Your task to perform on an android device: Search for a new bike on Walmart. Image 0: 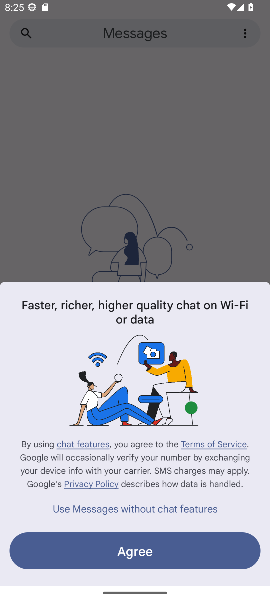
Step 0: press home button
Your task to perform on an android device: Search for a new bike on Walmart. Image 1: 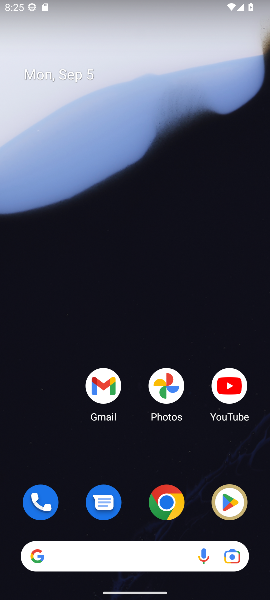
Step 1: drag from (252, 511) to (120, 38)
Your task to perform on an android device: Search for a new bike on Walmart. Image 2: 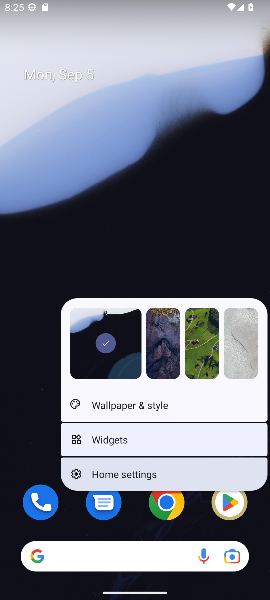
Step 2: click (87, 170)
Your task to perform on an android device: Search for a new bike on Walmart. Image 3: 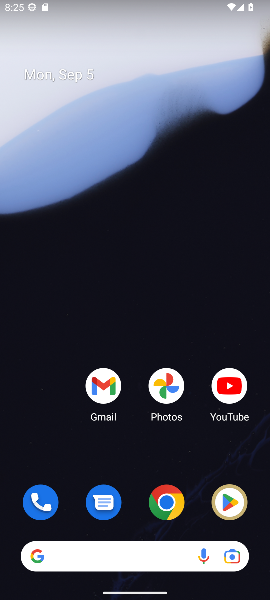
Step 3: drag from (48, 445) to (10, 356)
Your task to perform on an android device: Search for a new bike on Walmart. Image 4: 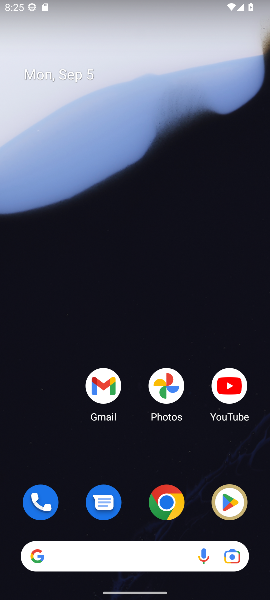
Step 4: click (3, 17)
Your task to perform on an android device: Search for a new bike on Walmart. Image 5: 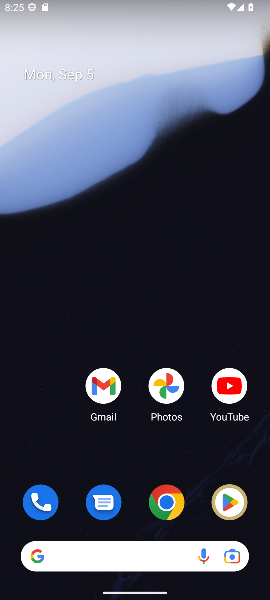
Step 5: drag from (63, 151) to (31, 20)
Your task to perform on an android device: Search for a new bike on Walmart. Image 6: 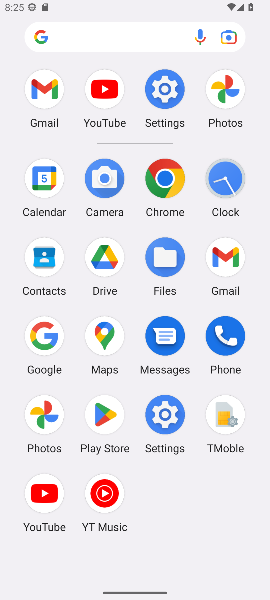
Step 6: click (43, 331)
Your task to perform on an android device: Search for a new bike on Walmart. Image 7: 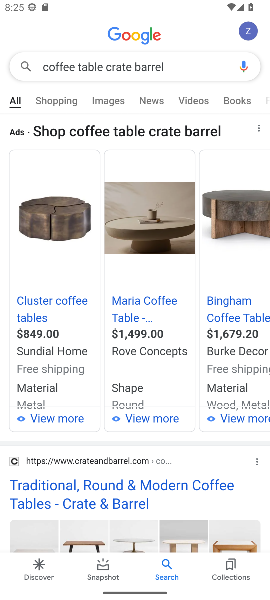
Step 7: press back button
Your task to perform on an android device: Search for a new bike on Walmart. Image 8: 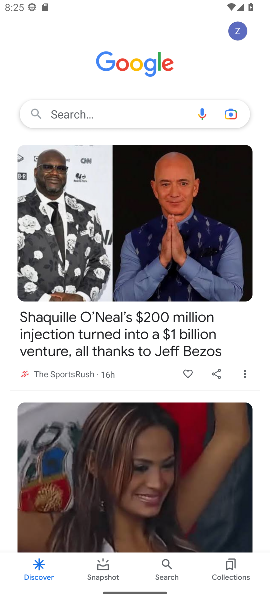
Step 8: click (69, 112)
Your task to perform on an android device: Search for a new bike on Walmart. Image 9: 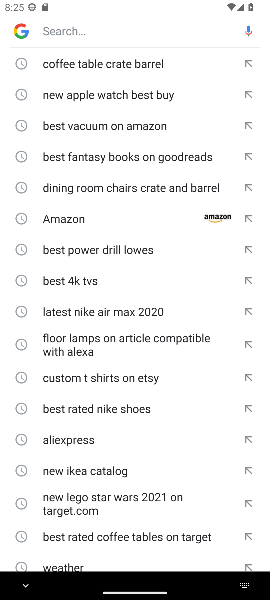
Step 9: type "new bike on Walmart"
Your task to perform on an android device: Search for a new bike on Walmart. Image 10: 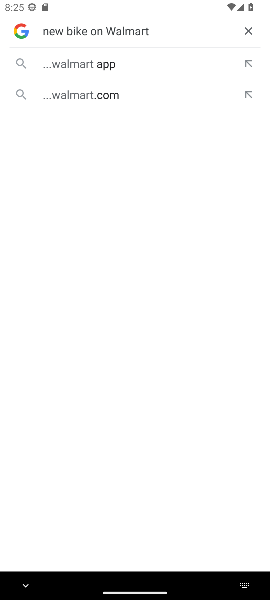
Step 10: click (74, 86)
Your task to perform on an android device: Search for a new bike on Walmart. Image 11: 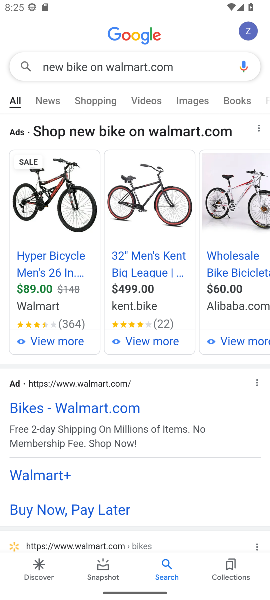
Step 11: task complete